Your task to perform on an android device: What's the weather today? Image 0: 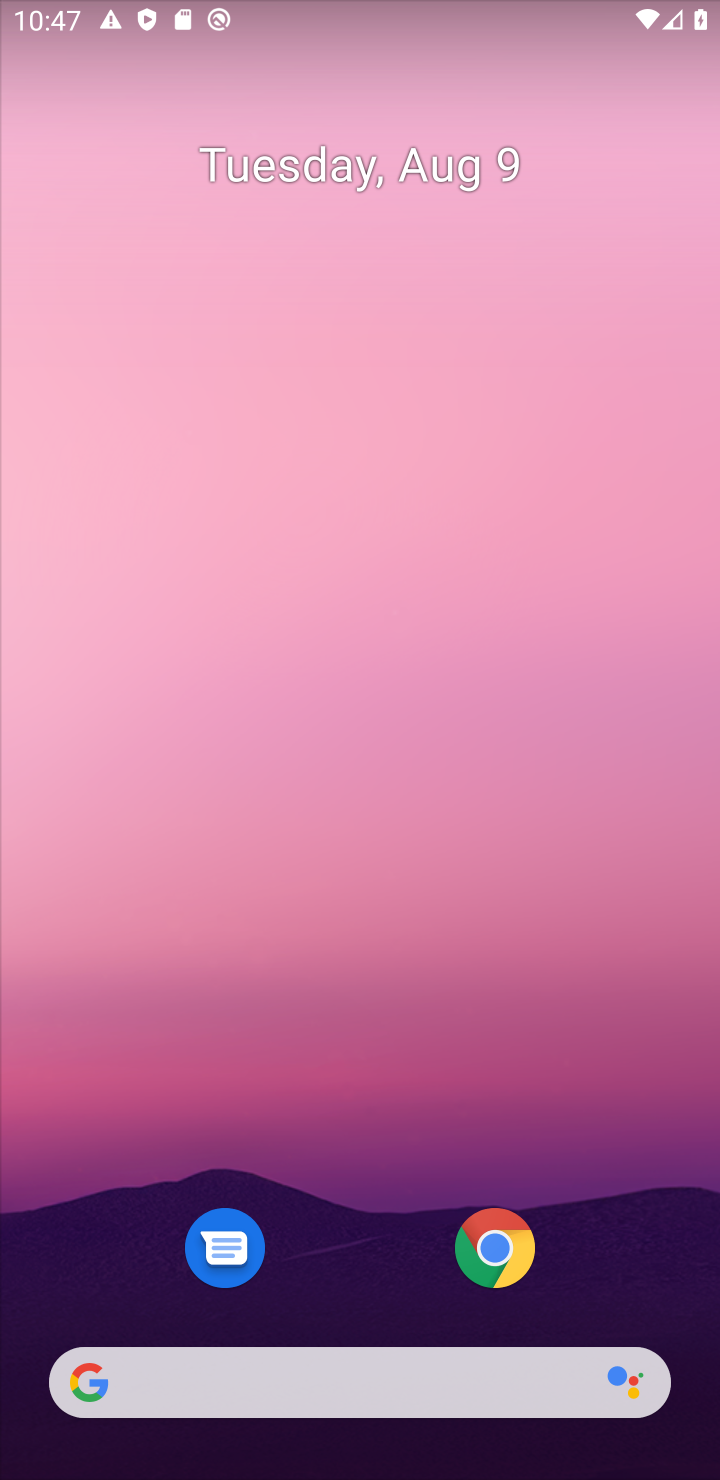
Step 0: click (277, 1391)
Your task to perform on an android device: What's the weather today? Image 1: 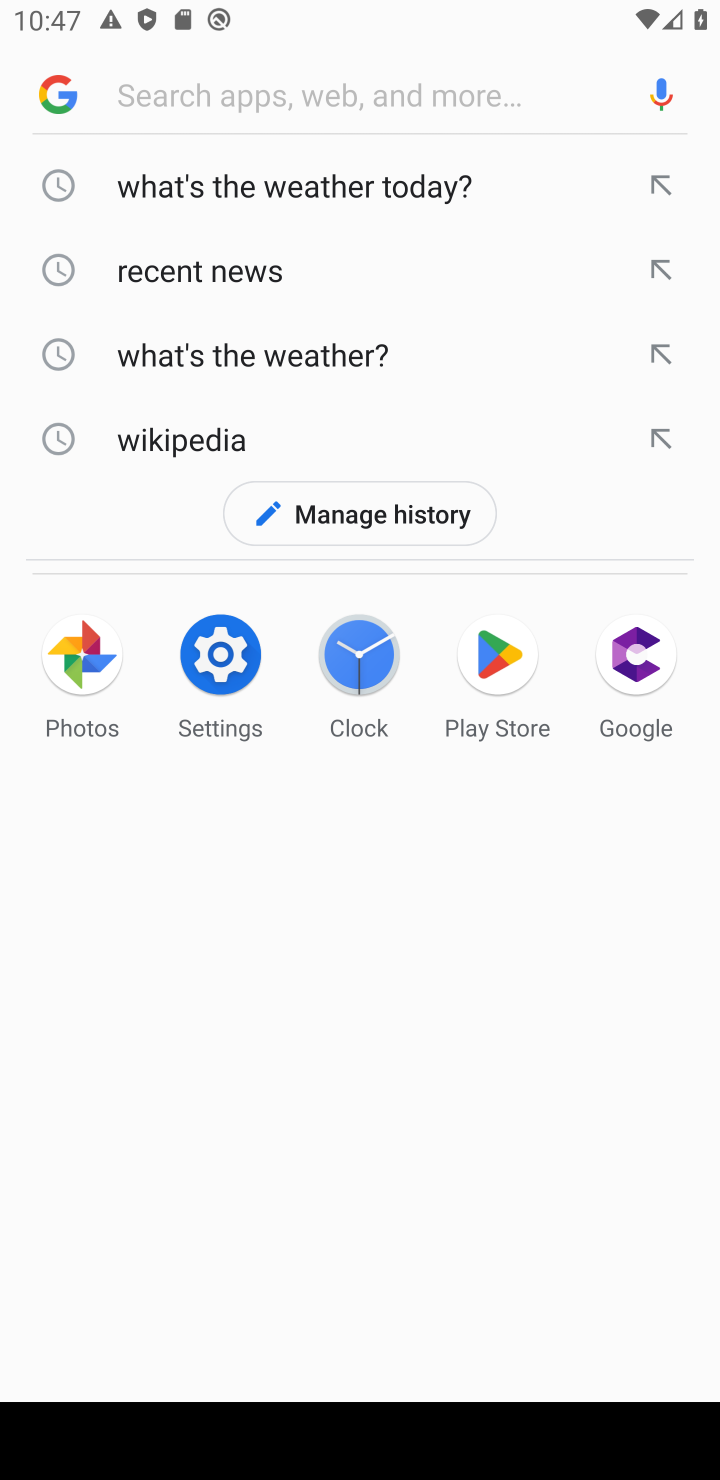
Step 1: type "What's the weather today?"
Your task to perform on an android device: What's the weather today? Image 2: 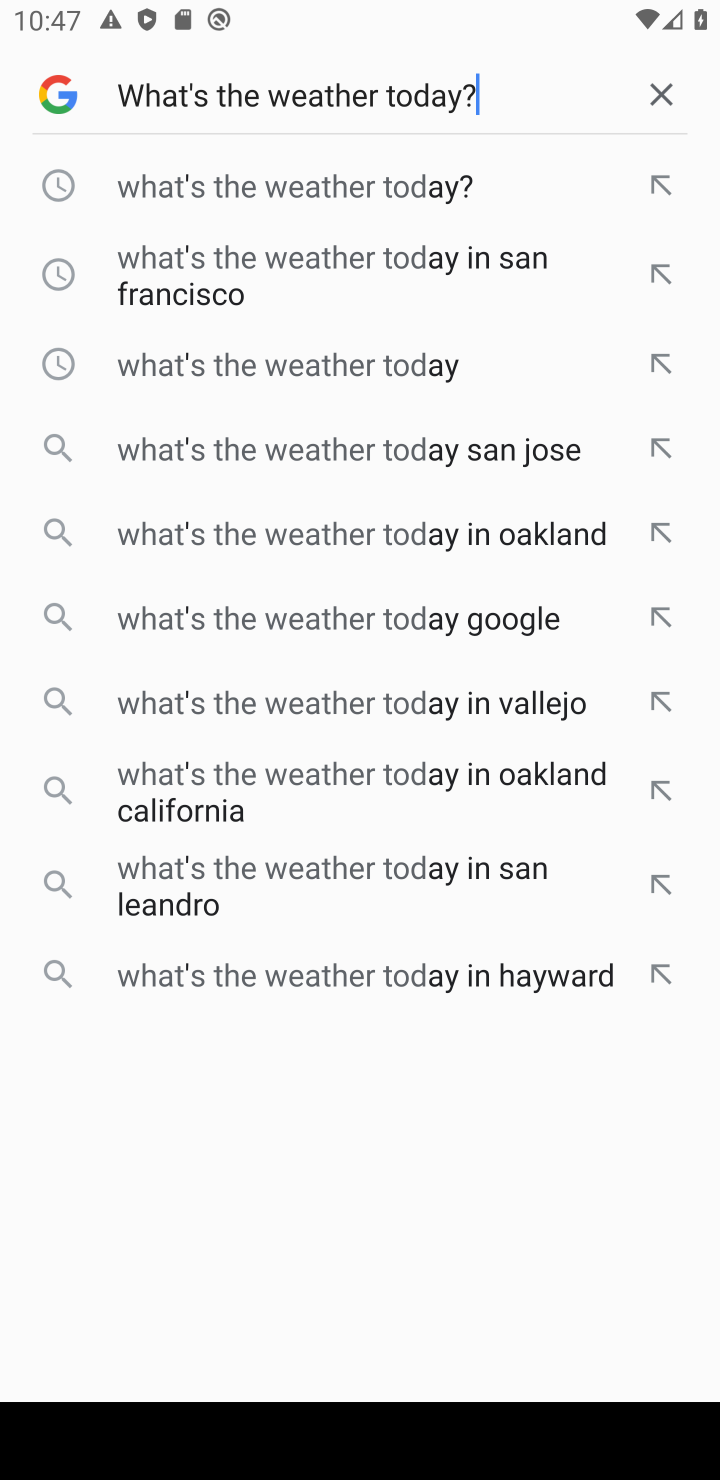
Step 2: press enter
Your task to perform on an android device: What's the weather today? Image 3: 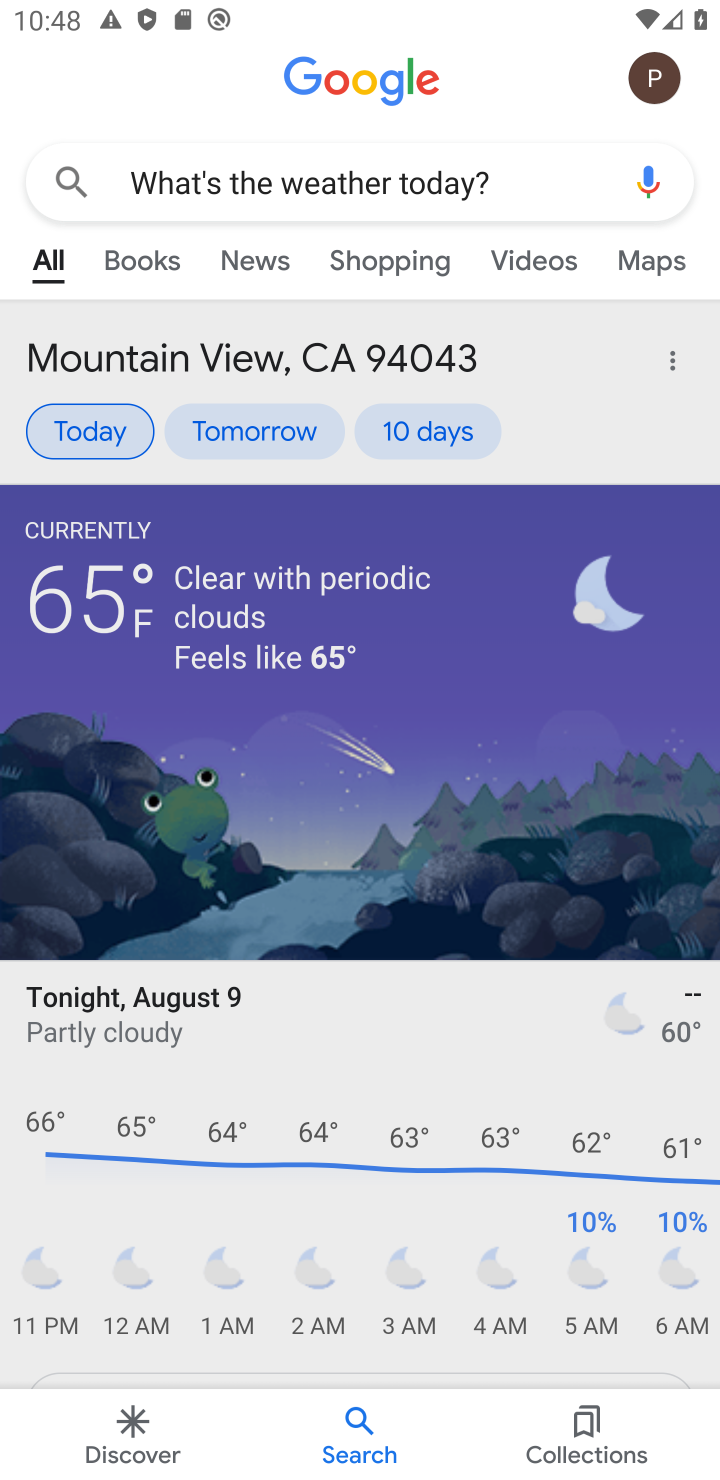
Step 3: task complete